Your task to perform on an android device: choose inbox layout in the gmail app Image 0: 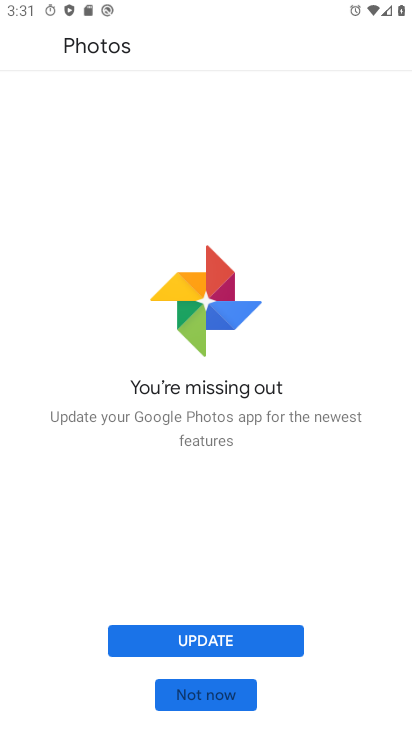
Step 0: press home button
Your task to perform on an android device: choose inbox layout in the gmail app Image 1: 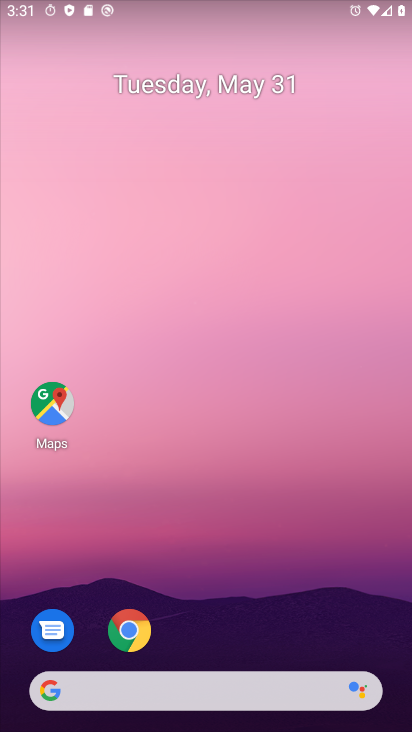
Step 1: drag from (289, 729) to (224, 1)
Your task to perform on an android device: choose inbox layout in the gmail app Image 2: 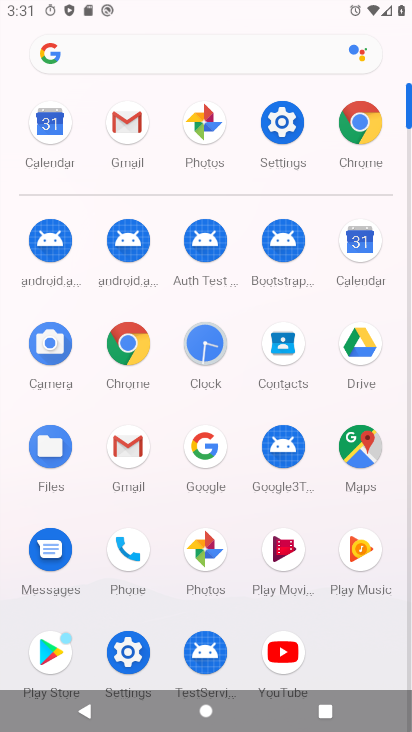
Step 2: click (134, 458)
Your task to perform on an android device: choose inbox layout in the gmail app Image 3: 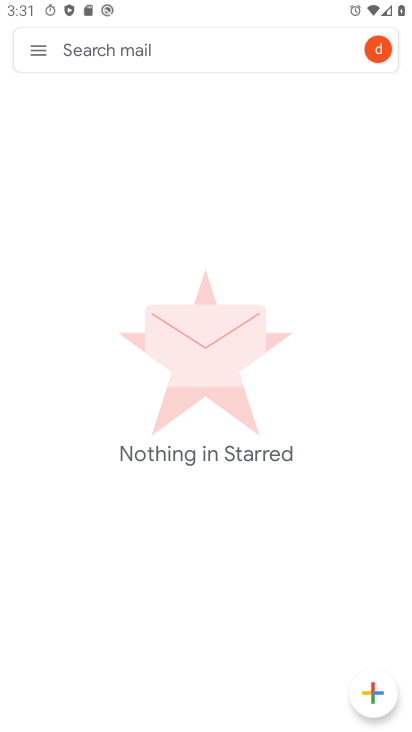
Step 3: click (37, 50)
Your task to perform on an android device: choose inbox layout in the gmail app Image 4: 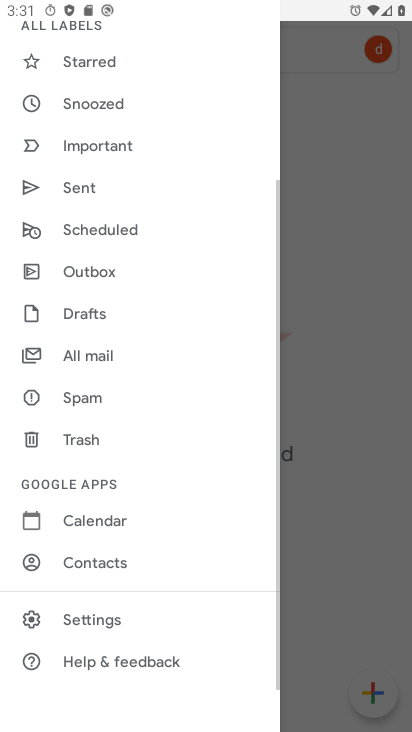
Step 4: click (106, 613)
Your task to perform on an android device: choose inbox layout in the gmail app Image 5: 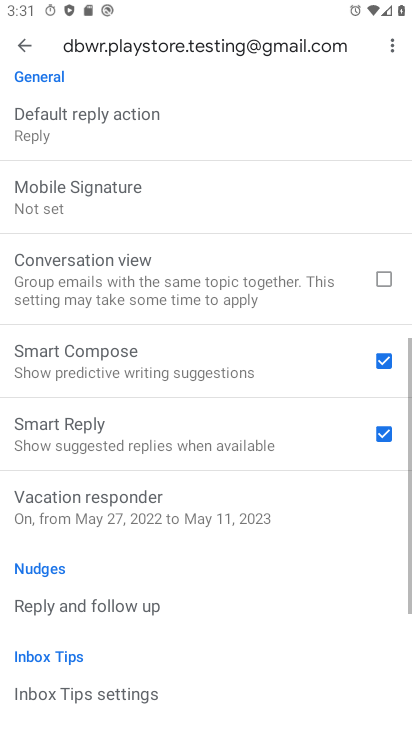
Step 5: drag from (138, 177) to (131, 680)
Your task to perform on an android device: choose inbox layout in the gmail app Image 6: 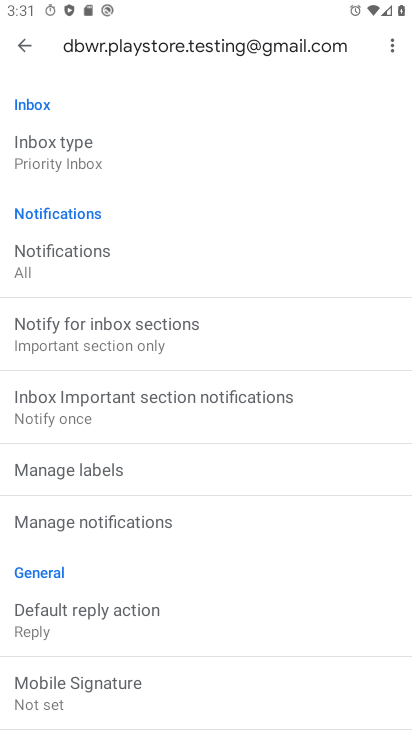
Step 6: click (124, 165)
Your task to perform on an android device: choose inbox layout in the gmail app Image 7: 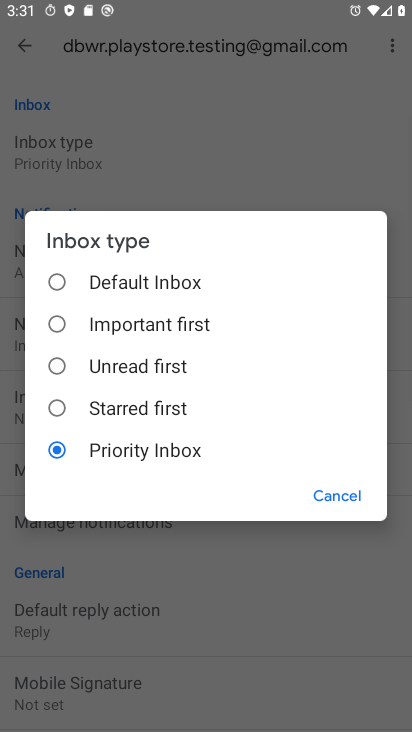
Step 7: click (50, 276)
Your task to perform on an android device: choose inbox layout in the gmail app Image 8: 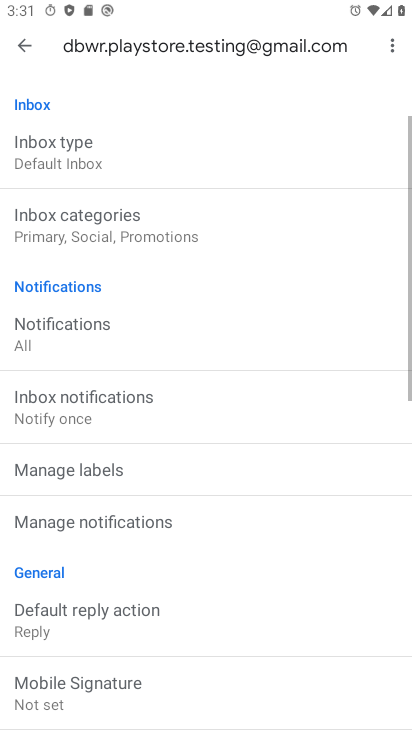
Step 8: task complete